Your task to perform on an android device: Go to Android settings Image 0: 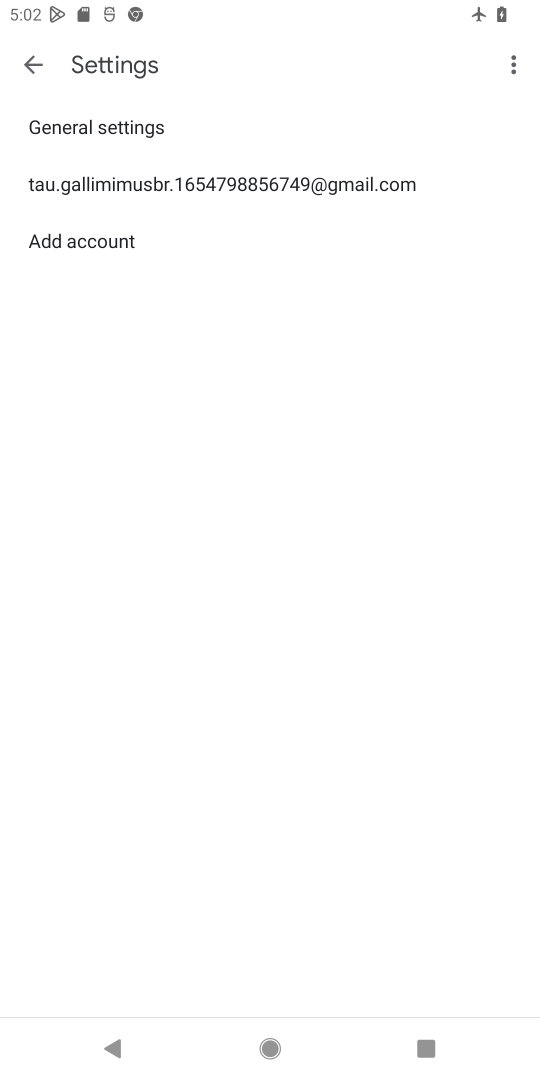
Step 0: press home button
Your task to perform on an android device: Go to Android settings Image 1: 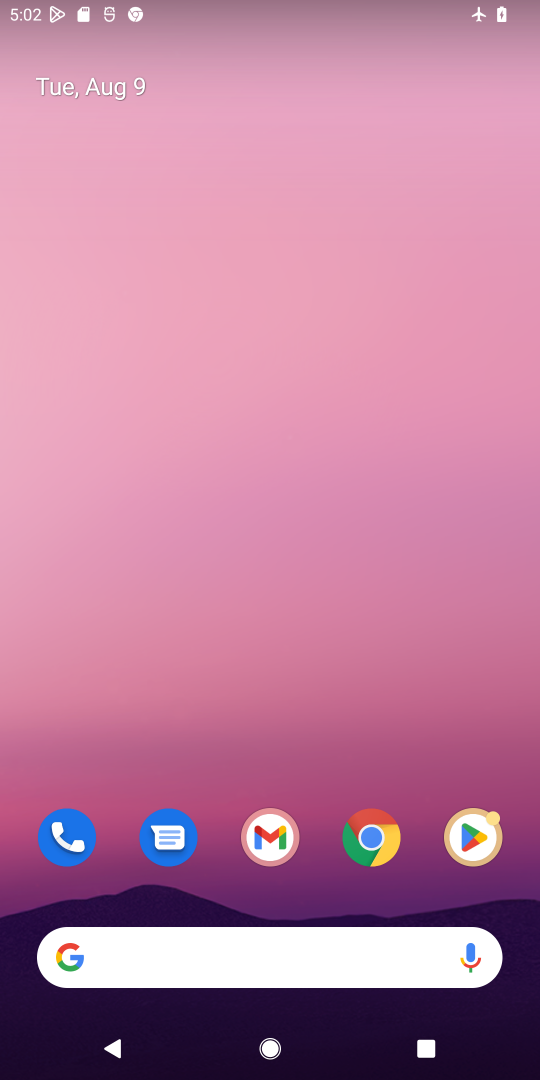
Step 1: drag from (336, 896) to (302, 166)
Your task to perform on an android device: Go to Android settings Image 2: 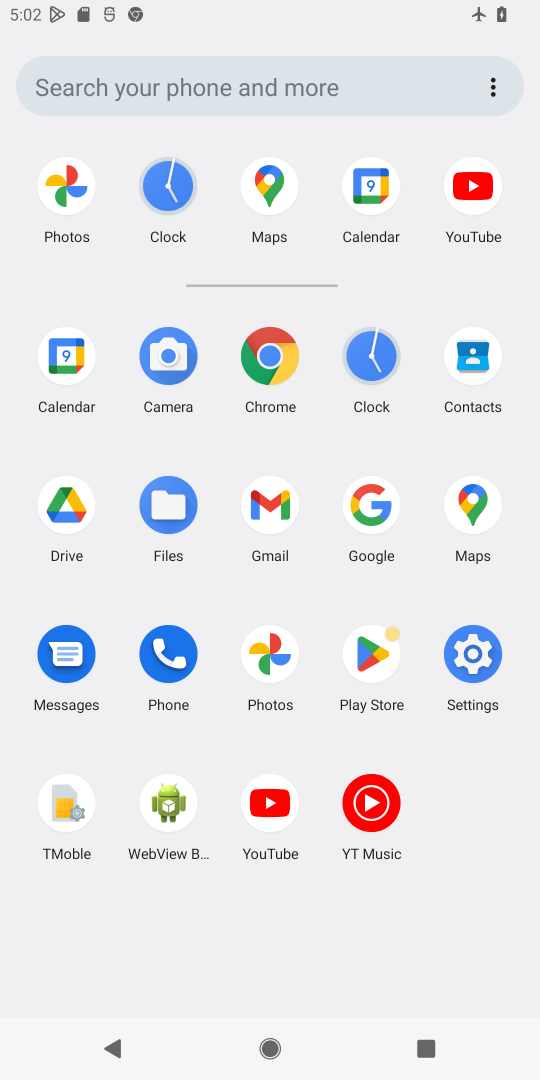
Step 2: click (461, 658)
Your task to perform on an android device: Go to Android settings Image 3: 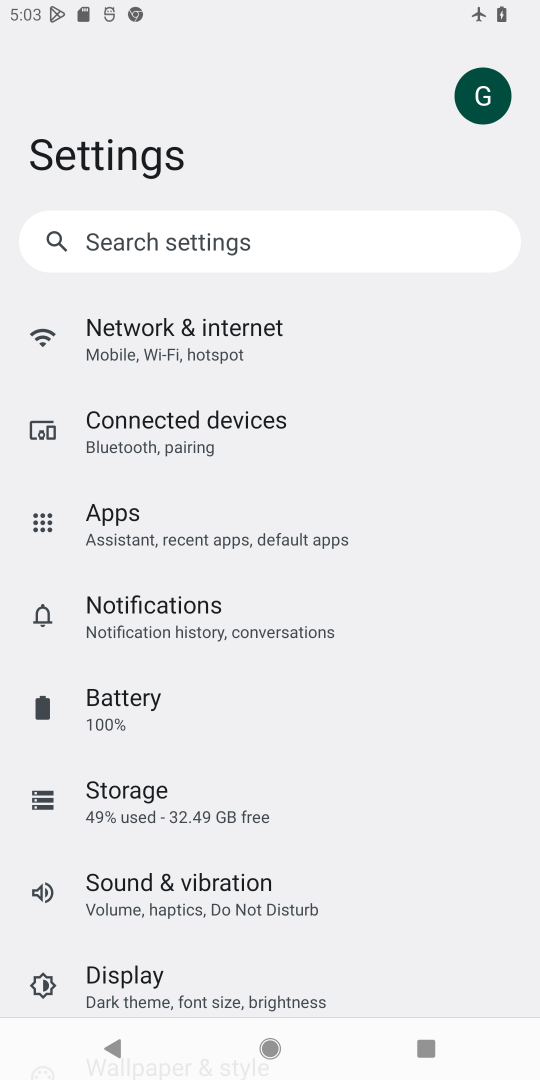
Step 3: task complete